Your task to perform on an android device: Search for pizza restaurants on Maps Image 0: 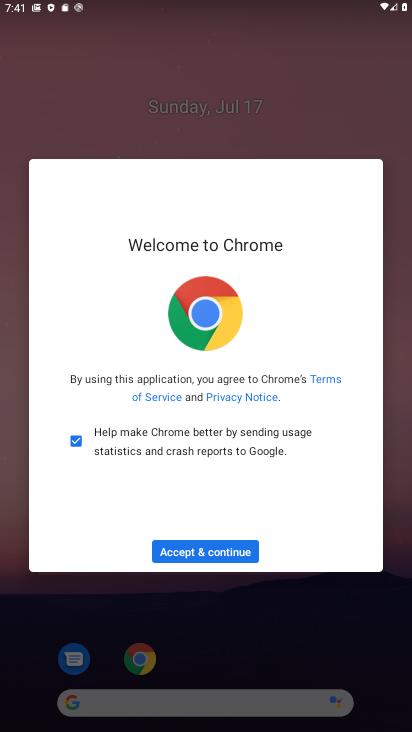
Step 0: click (217, 552)
Your task to perform on an android device: Search for pizza restaurants on Maps Image 1: 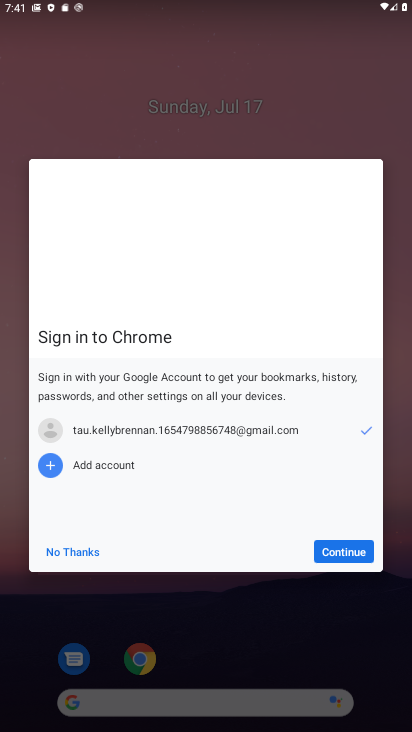
Step 1: press home button
Your task to perform on an android device: Search for pizza restaurants on Maps Image 2: 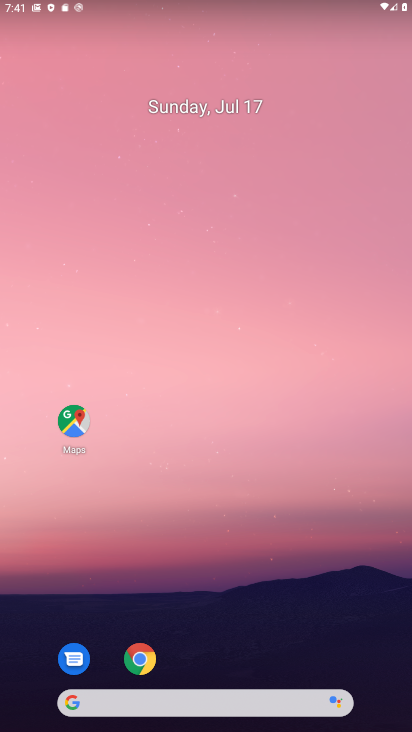
Step 2: click (79, 422)
Your task to perform on an android device: Search for pizza restaurants on Maps Image 3: 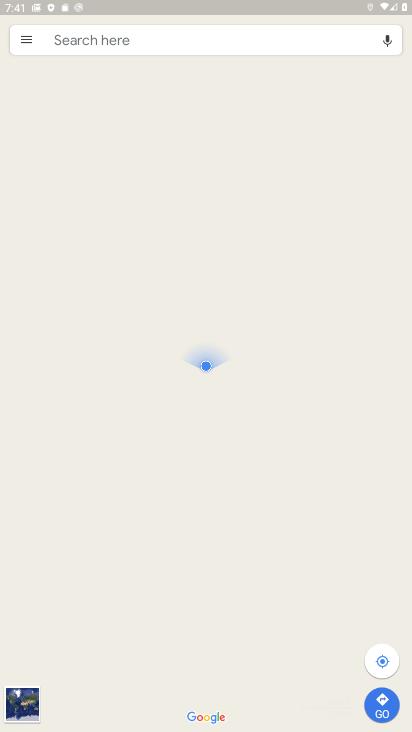
Step 3: click (152, 36)
Your task to perform on an android device: Search for pizza restaurants on Maps Image 4: 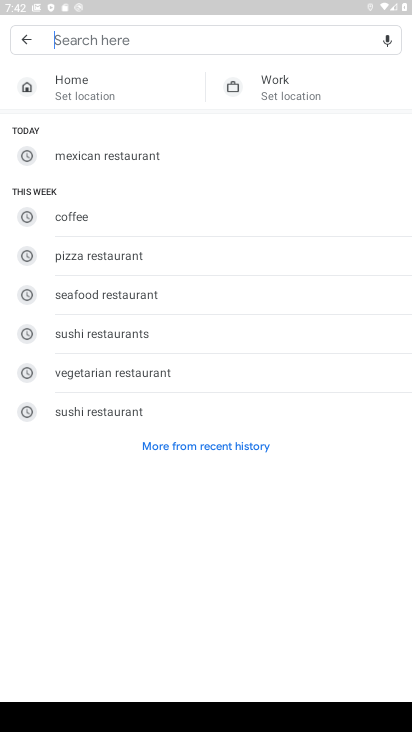
Step 4: type "pizza restaurants"
Your task to perform on an android device: Search for pizza restaurants on Maps Image 5: 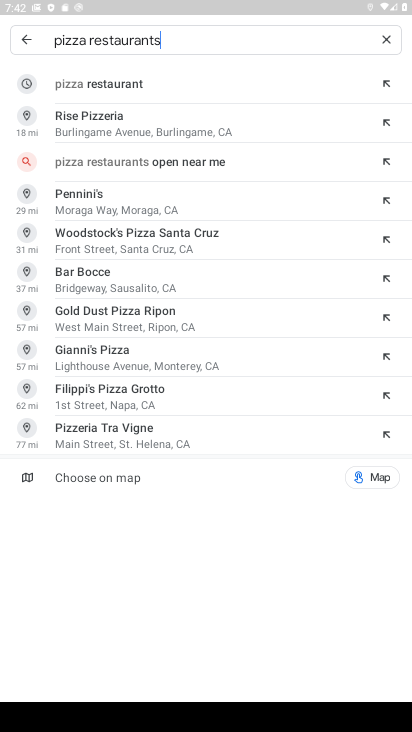
Step 5: click (130, 89)
Your task to perform on an android device: Search for pizza restaurants on Maps Image 6: 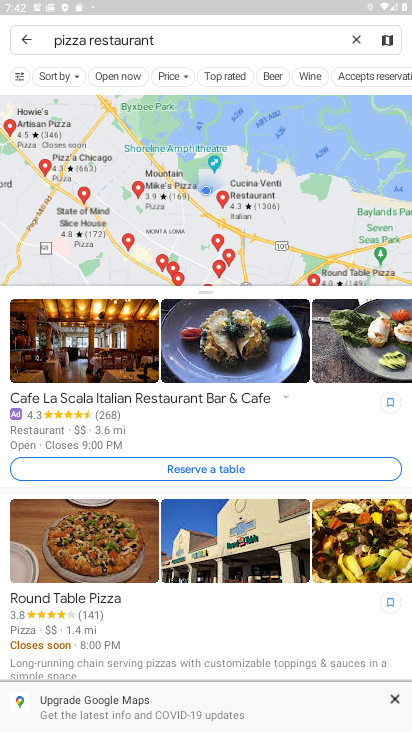
Step 6: task complete